Your task to perform on an android device: Open Google Image 0: 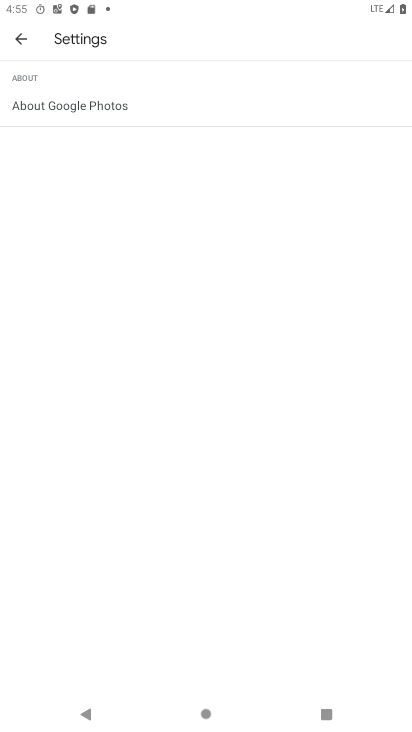
Step 0: press home button
Your task to perform on an android device: Open Google Image 1: 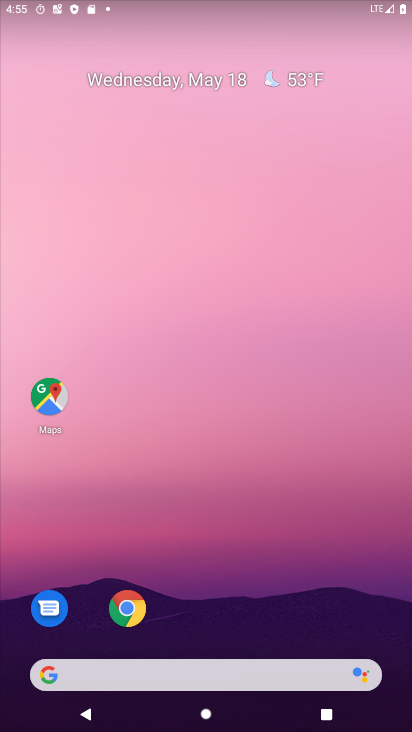
Step 1: drag from (244, 611) to (218, 30)
Your task to perform on an android device: Open Google Image 2: 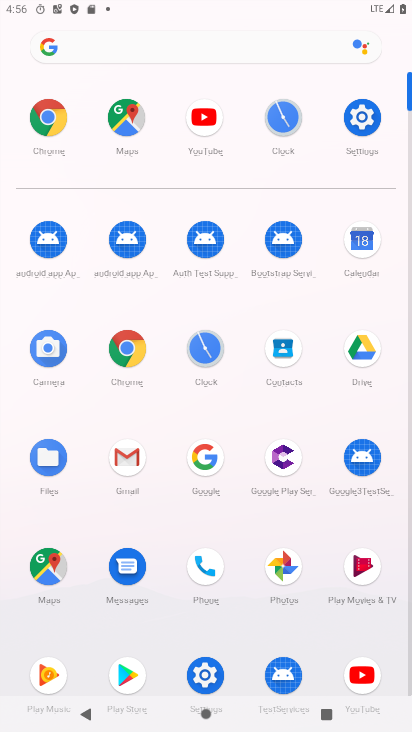
Step 2: click (215, 456)
Your task to perform on an android device: Open Google Image 3: 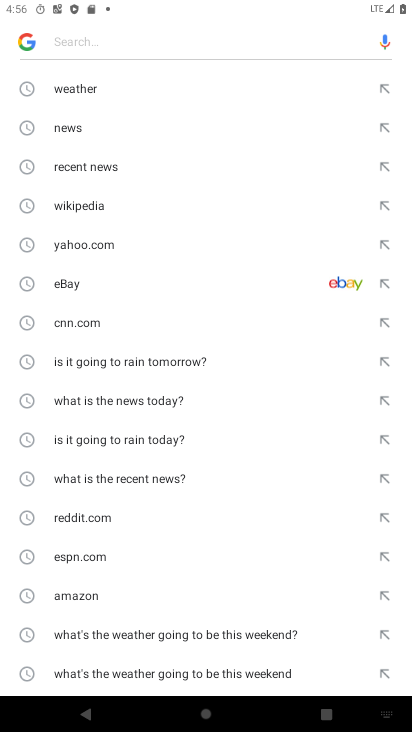
Step 3: press back button
Your task to perform on an android device: Open Google Image 4: 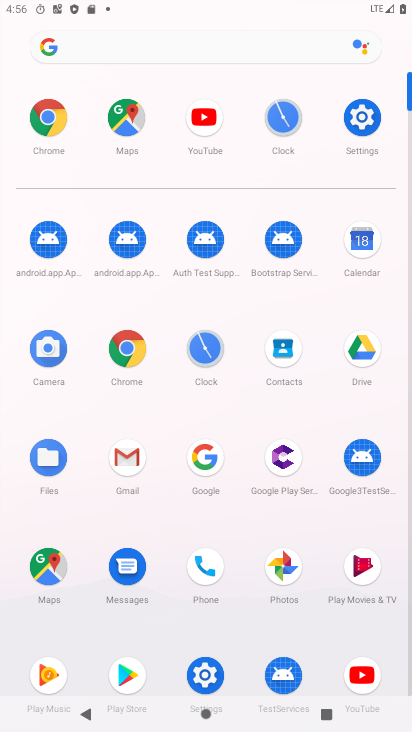
Step 4: click (207, 452)
Your task to perform on an android device: Open Google Image 5: 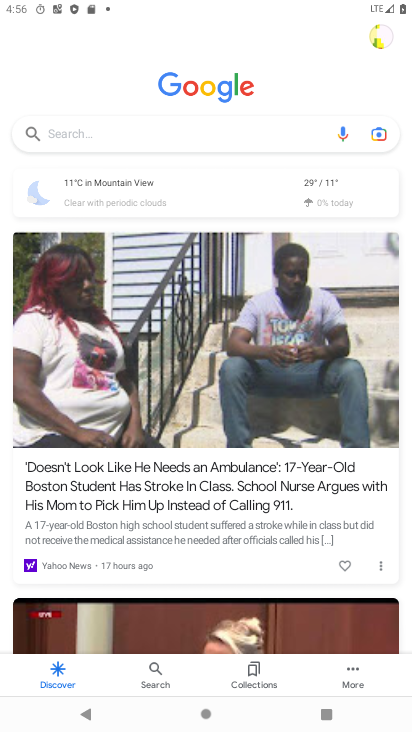
Step 5: task complete